Your task to perform on an android device: Open Amazon Image 0: 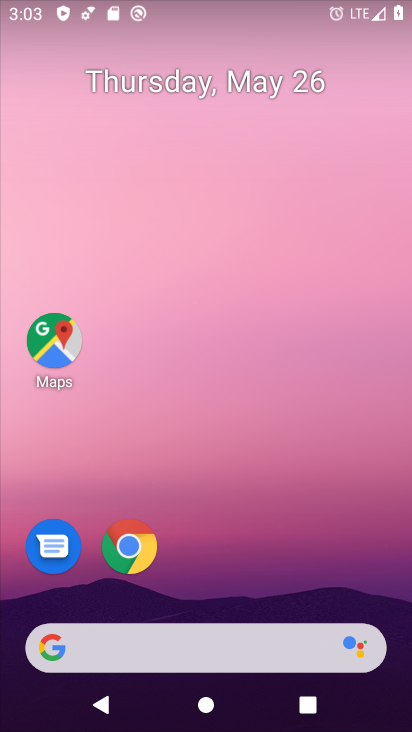
Step 0: drag from (235, 590) to (285, 140)
Your task to perform on an android device: Open Amazon Image 1: 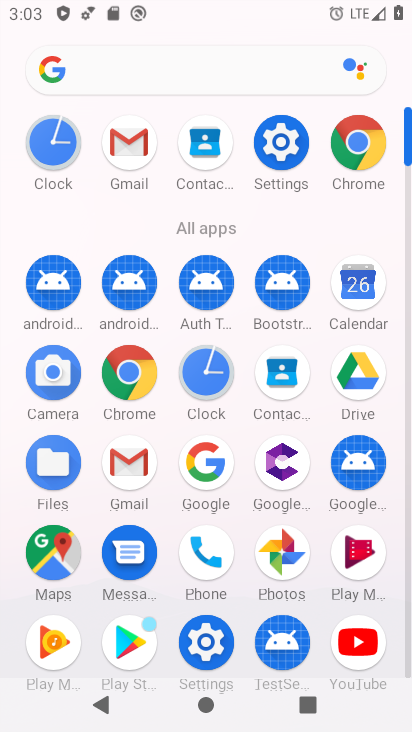
Step 1: click (350, 142)
Your task to perform on an android device: Open Amazon Image 2: 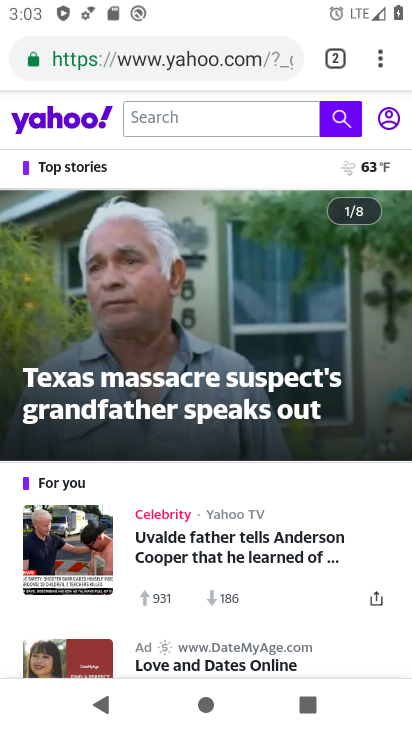
Step 2: click (333, 51)
Your task to perform on an android device: Open Amazon Image 3: 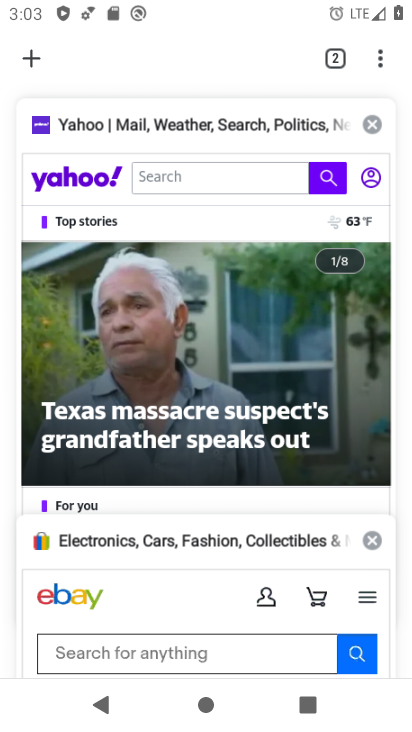
Step 3: click (32, 52)
Your task to perform on an android device: Open Amazon Image 4: 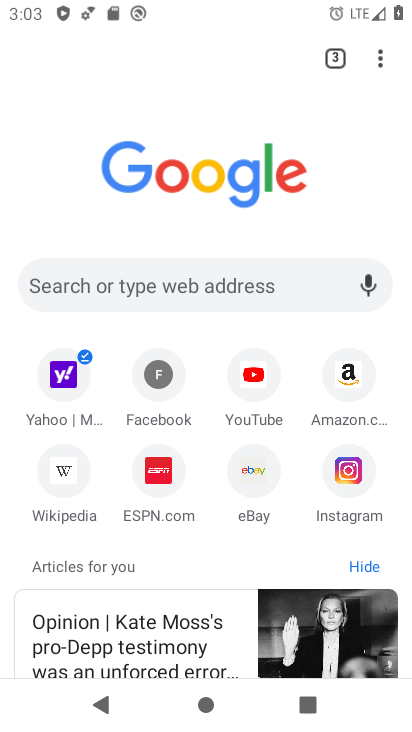
Step 4: click (344, 388)
Your task to perform on an android device: Open Amazon Image 5: 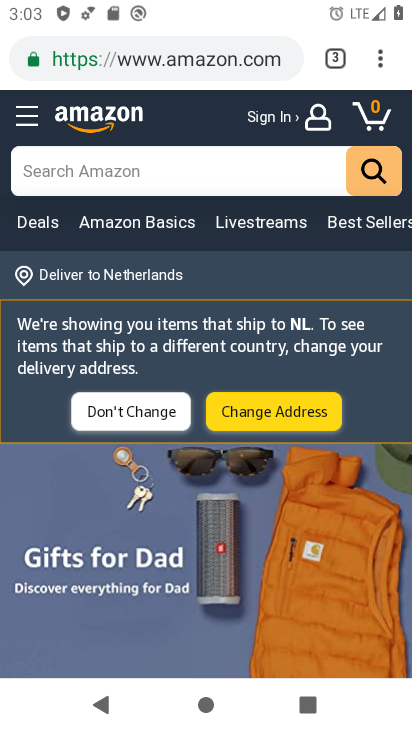
Step 5: task complete